Your task to perform on an android device: What is the news today? Image 0: 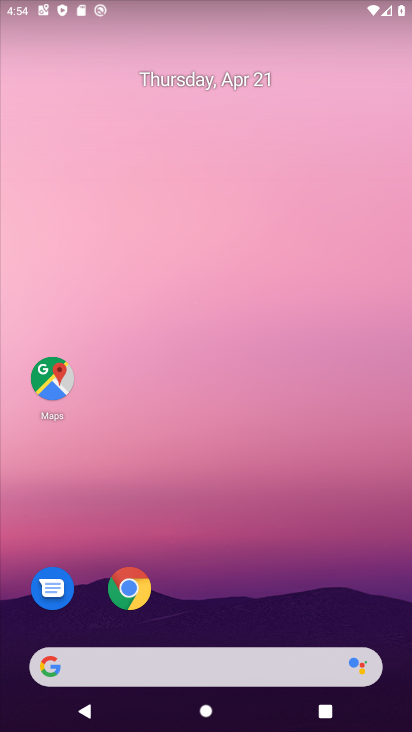
Step 0: drag from (203, 593) to (243, 147)
Your task to perform on an android device: What is the news today? Image 1: 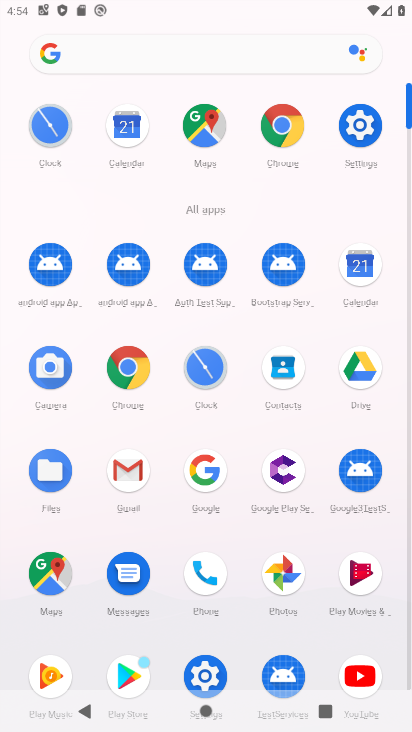
Step 1: click (116, 48)
Your task to perform on an android device: What is the news today? Image 2: 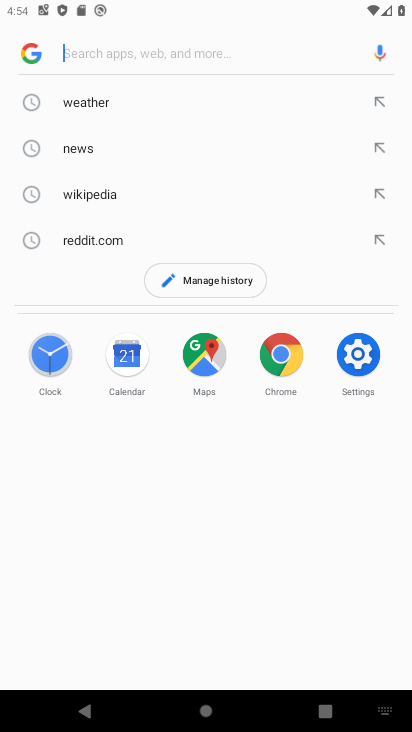
Step 2: click (97, 139)
Your task to perform on an android device: What is the news today? Image 3: 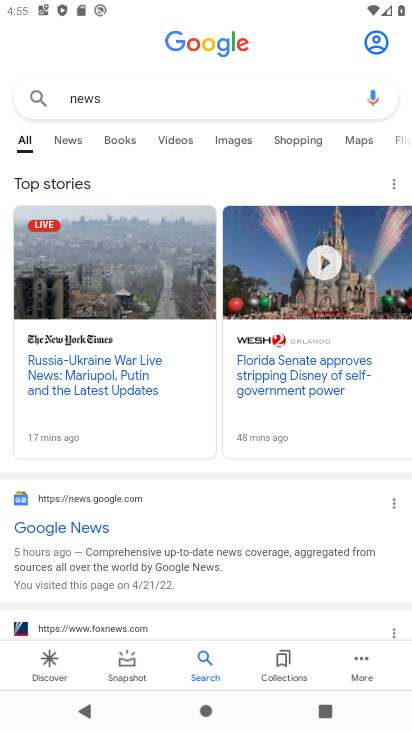
Step 3: task complete